Your task to perform on an android device: What's the weather going to be this weekend? Image 0: 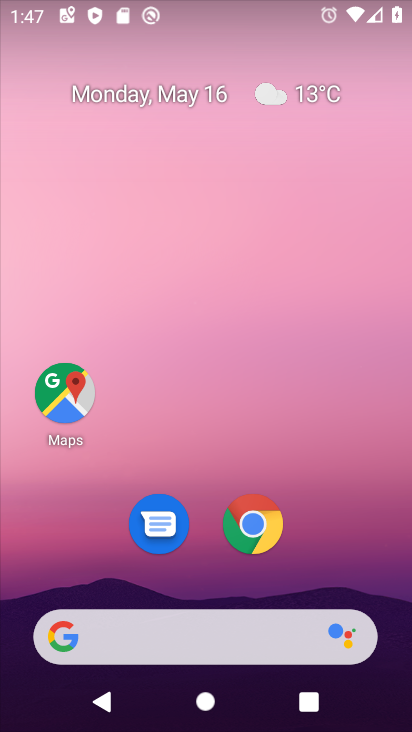
Step 0: click (282, 84)
Your task to perform on an android device: What's the weather going to be this weekend? Image 1: 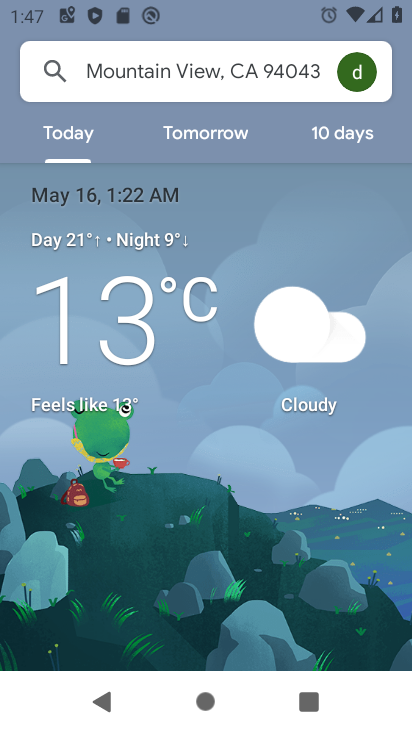
Step 1: click (343, 124)
Your task to perform on an android device: What's the weather going to be this weekend? Image 2: 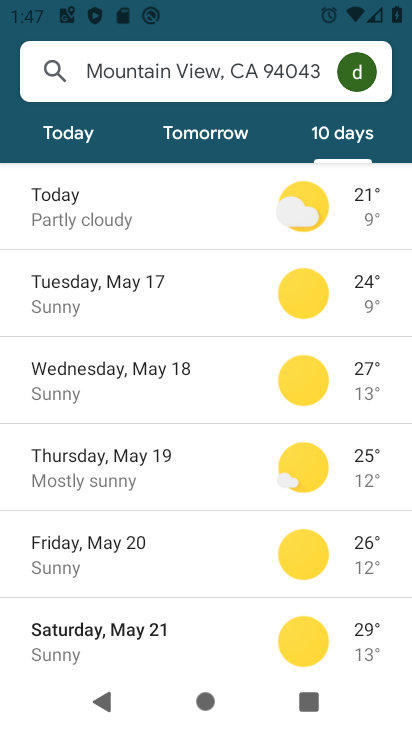
Step 2: drag from (187, 548) to (221, 216)
Your task to perform on an android device: What's the weather going to be this weekend? Image 3: 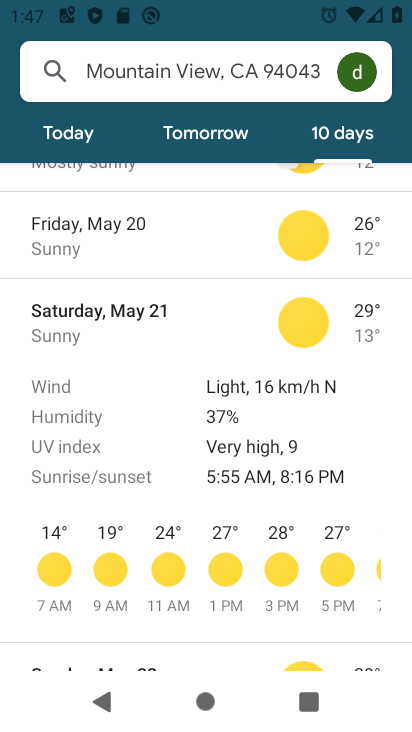
Step 3: click (148, 303)
Your task to perform on an android device: What's the weather going to be this weekend? Image 4: 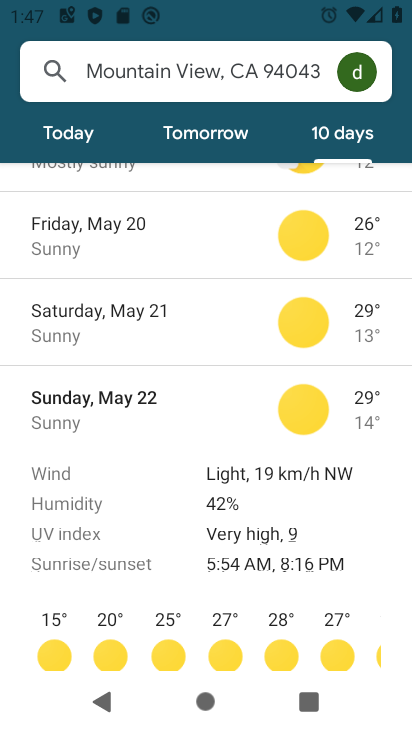
Step 4: click (148, 303)
Your task to perform on an android device: What's the weather going to be this weekend? Image 5: 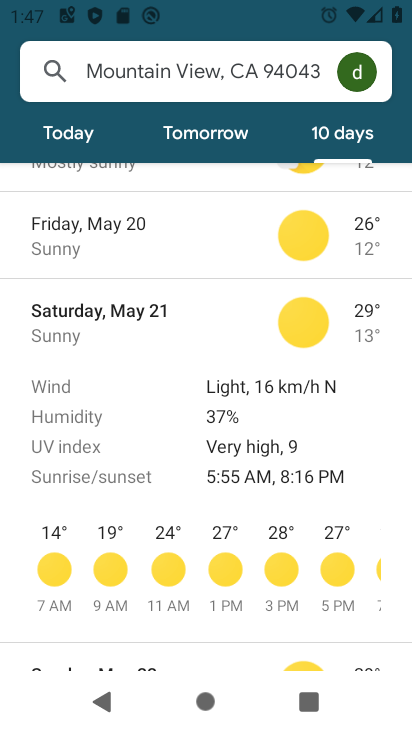
Step 5: task complete